Your task to perform on an android device: check data usage Image 0: 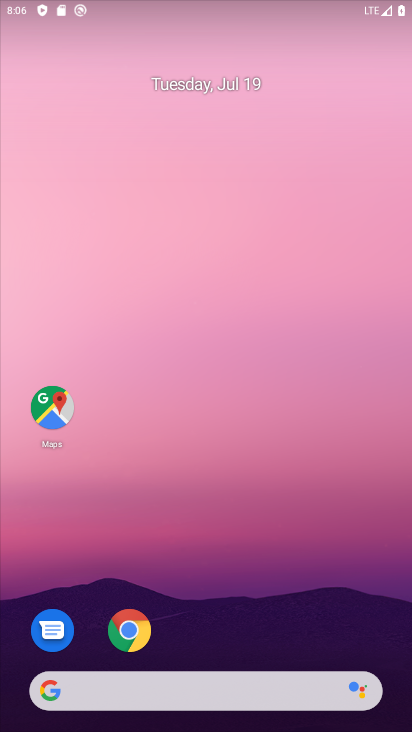
Step 0: press back button
Your task to perform on an android device: check data usage Image 1: 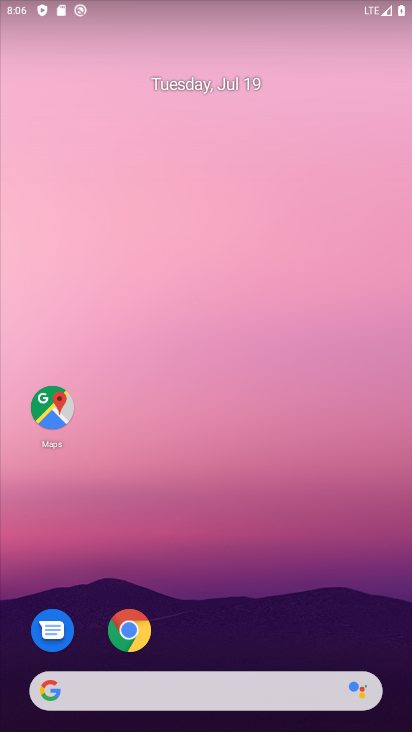
Step 1: drag from (190, 707) to (190, 178)
Your task to perform on an android device: check data usage Image 2: 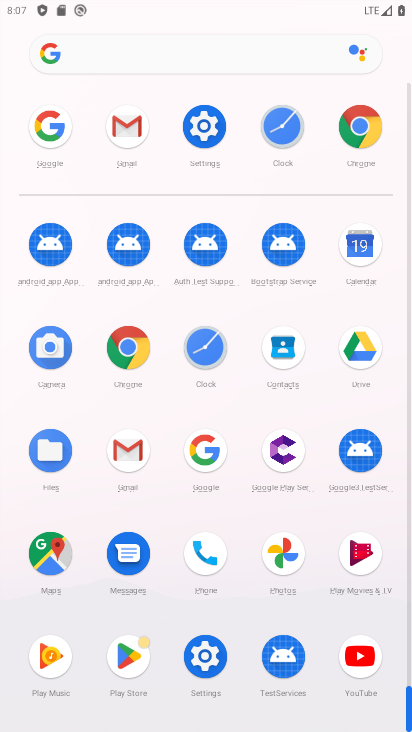
Step 2: click (207, 142)
Your task to perform on an android device: check data usage Image 3: 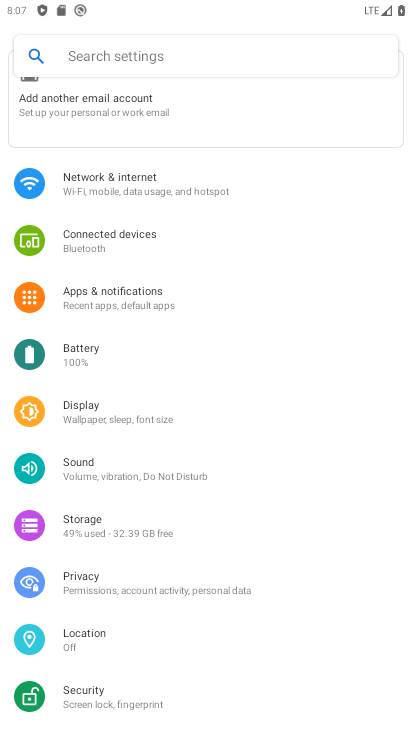
Step 3: click (160, 193)
Your task to perform on an android device: check data usage Image 4: 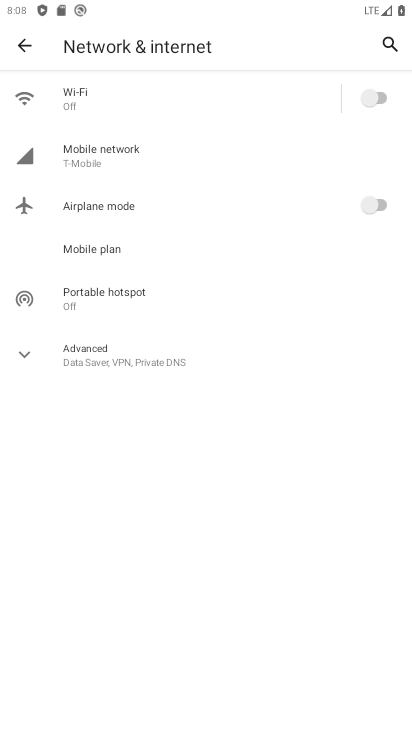
Step 4: click (93, 155)
Your task to perform on an android device: check data usage Image 5: 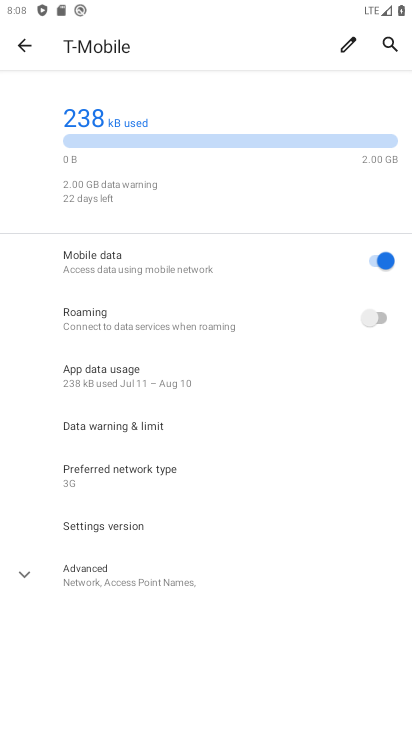
Step 5: click (151, 378)
Your task to perform on an android device: check data usage Image 6: 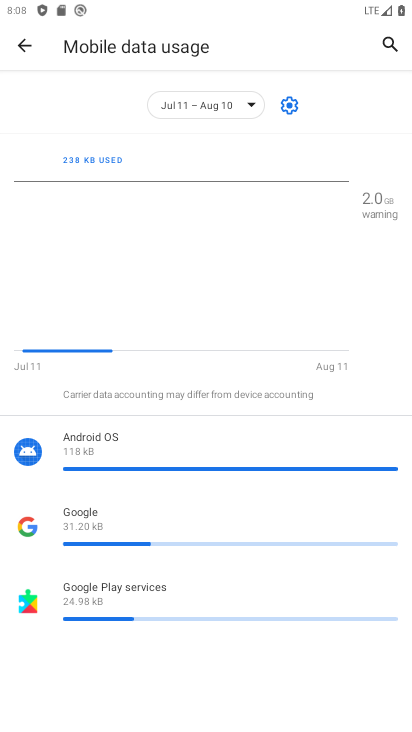
Step 6: task complete